Your task to perform on an android device: Search for vegetarian restaurants on Maps Image 0: 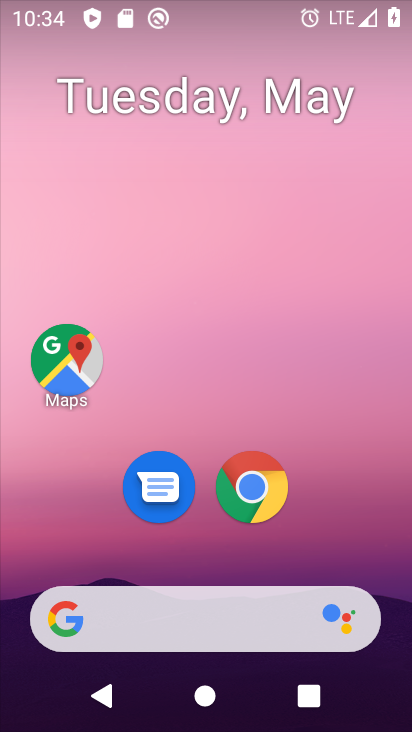
Step 0: drag from (190, 558) to (248, 11)
Your task to perform on an android device: Search for vegetarian restaurants on Maps Image 1: 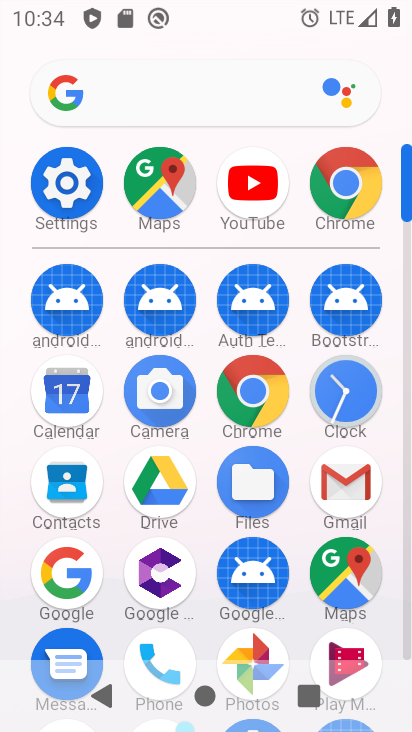
Step 1: click (322, 563)
Your task to perform on an android device: Search for vegetarian restaurants on Maps Image 2: 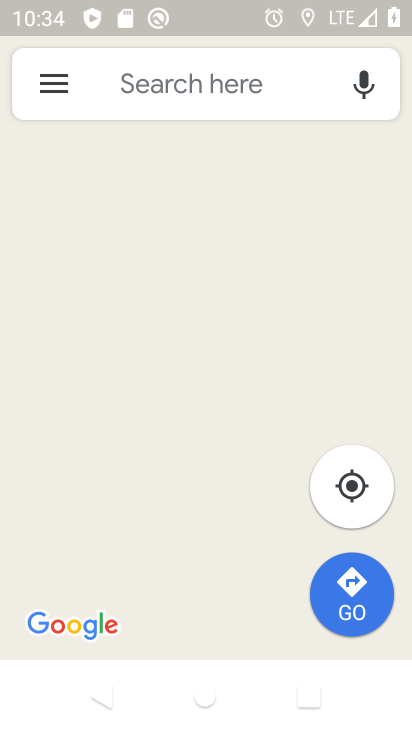
Step 2: drag from (195, 622) to (269, 129)
Your task to perform on an android device: Search for vegetarian restaurants on Maps Image 3: 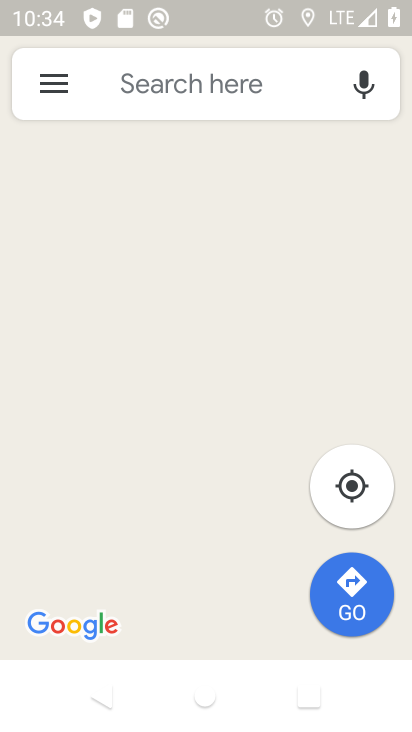
Step 3: click (150, 94)
Your task to perform on an android device: Search for vegetarian restaurants on Maps Image 4: 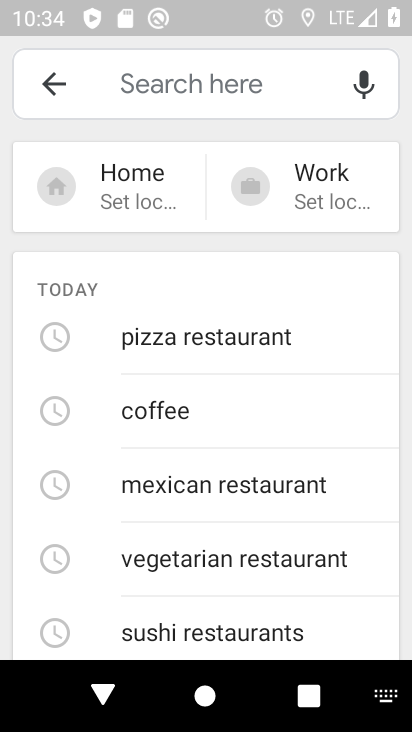
Step 4: click (223, 572)
Your task to perform on an android device: Search for vegetarian restaurants on Maps Image 5: 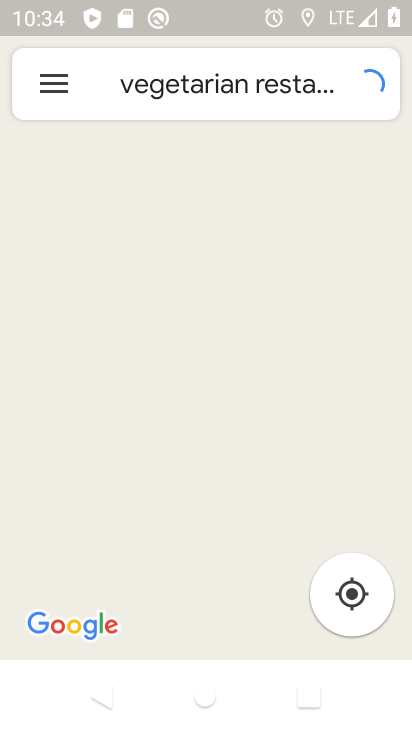
Step 5: task complete